Your task to perform on an android device: Open Chrome and go to the settings page Image 0: 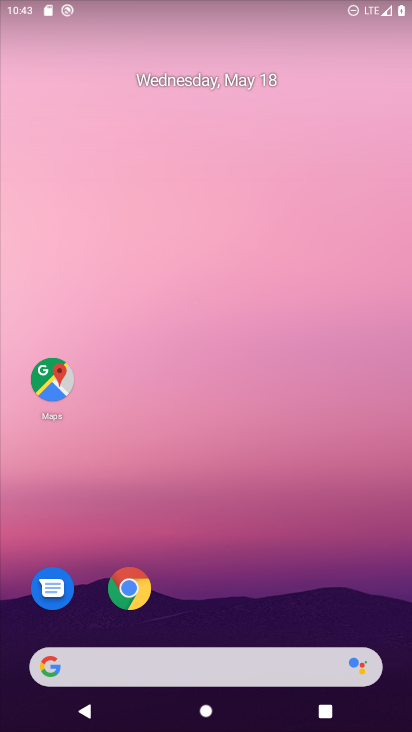
Step 0: click (143, 595)
Your task to perform on an android device: Open Chrome and go to the settings page Image 1: 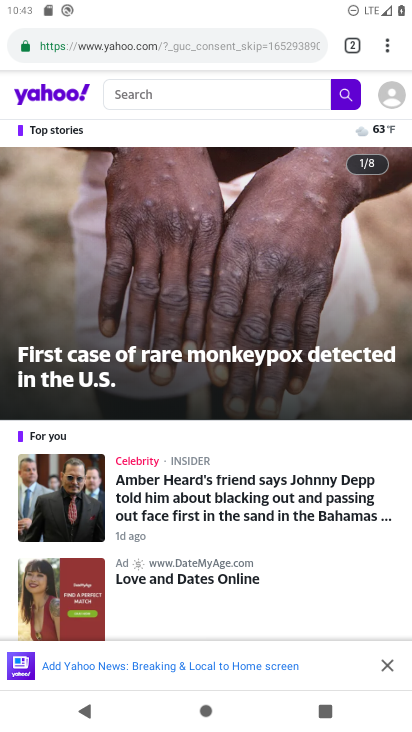
Step 1: click (388, 46)
Your task to perform on an android device: Open Chrome and go to the settings page Image 2: 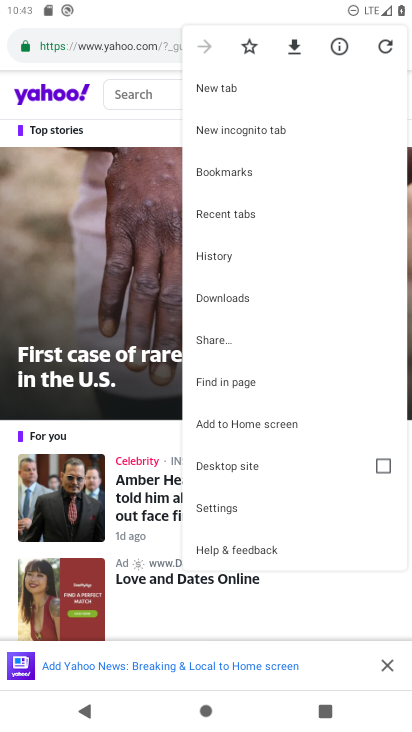
Step 2: click (216, 510)
Your task to perform on an android device: Open Chrome and go to the settings page Image 3: 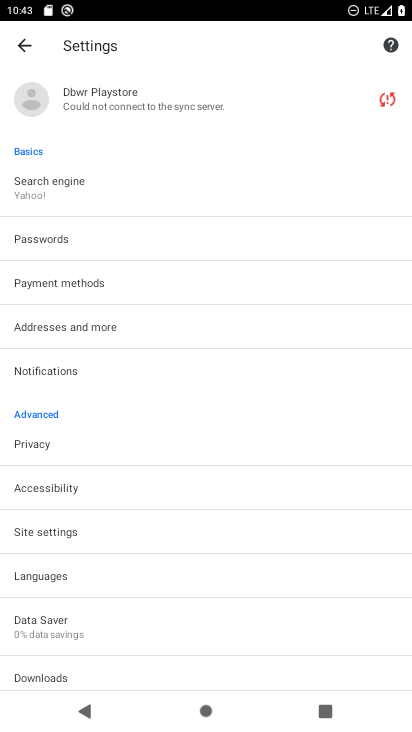
Step 3: task complete